Your task to perform on an android device: turn off priority inbox in the gmail app Image 0: 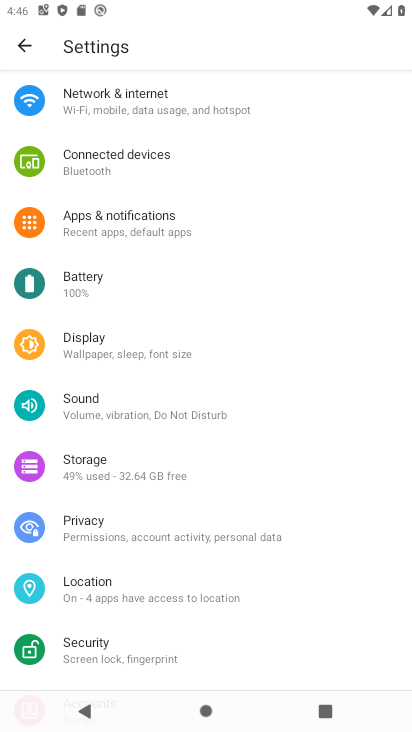
Step 0: press back button
Your task to perform on an android device: turn off priority inbox in the gmail app Image 1: 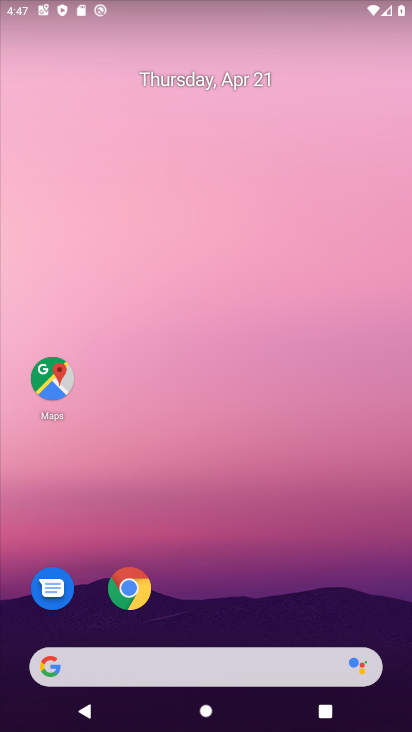
Step 1: drag from (255, 560) to (295, 55)
Your task to perform on an android device: turn off priority inbox in the gmail app Image 2: 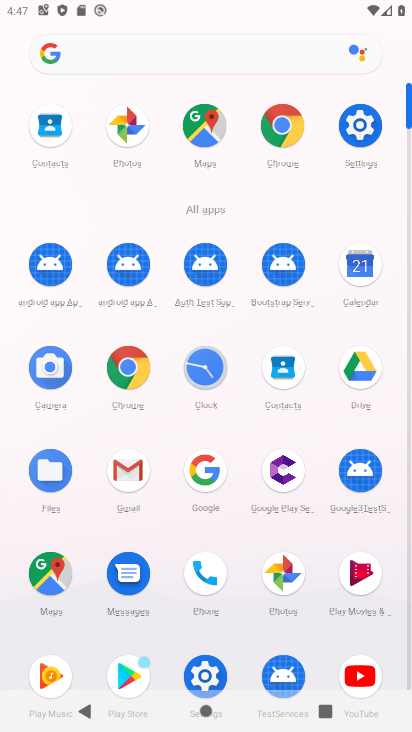
Step 2: click (129, 465)
Your task to perform on an android device: turn off priority inbox in the gmail app Image 3: 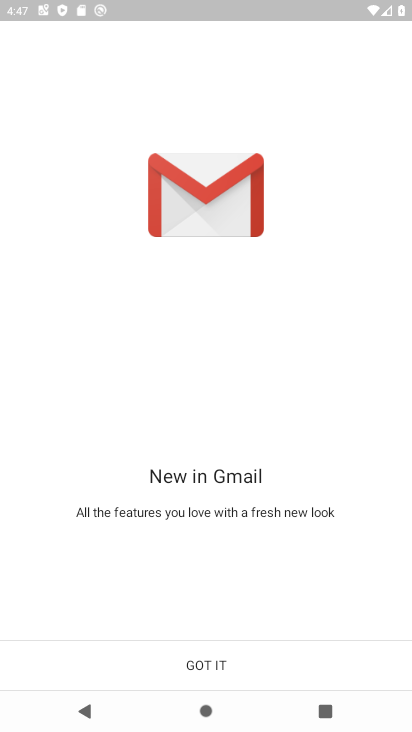
Step 3: click (210, 658)
Your task to perform on an android device: turn off priority inbox in the gmail app Image 4: 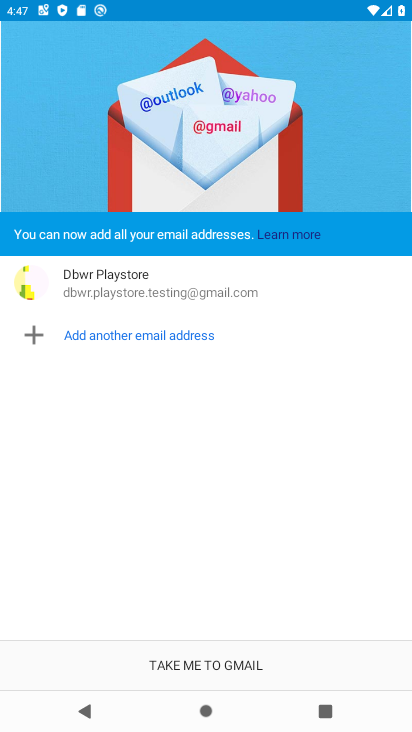
Step 4: click (210, 658)
Your task to perform on an android device: turn off priority inbox in the gmail app Image 5: 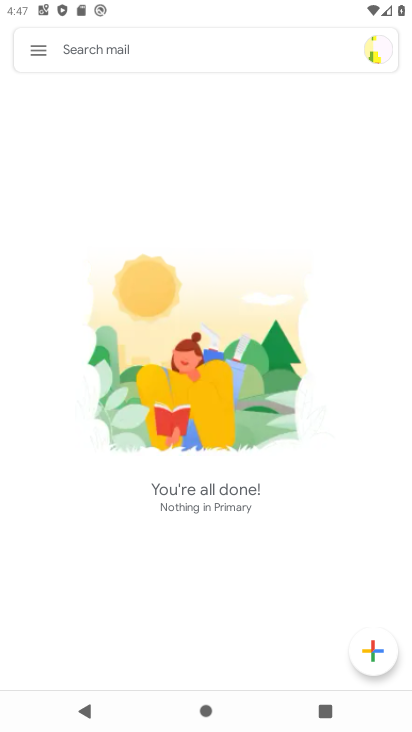
Step 5: click (37, 52)
Your task to perform on an android device: turn off priority inbox in the gmail app Image 6: 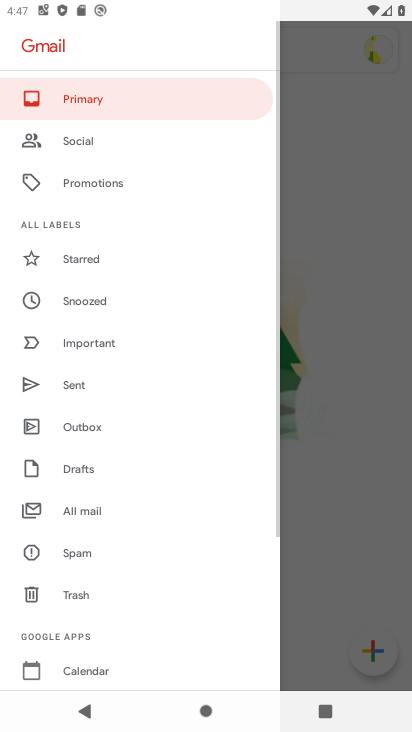
Step 6: drag from (105, 671) to (164, 53)
Your task to perform on an android device: turn off priority inbox in the gmail app Image 7: 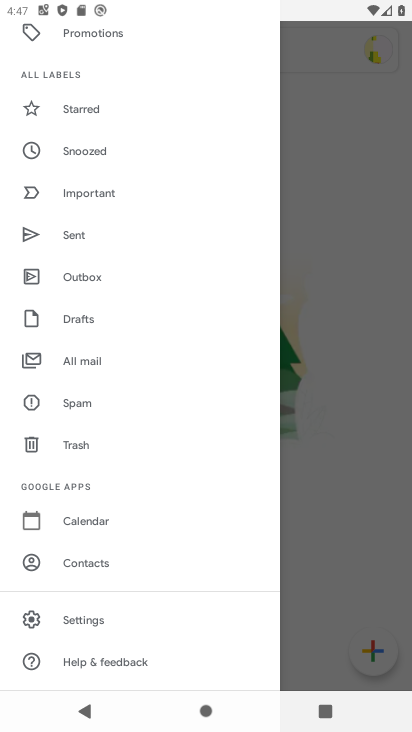
Step 7: click (99, 623)
Your task to perform on an android device: turn off priority inbox in the gmail app Image 8: 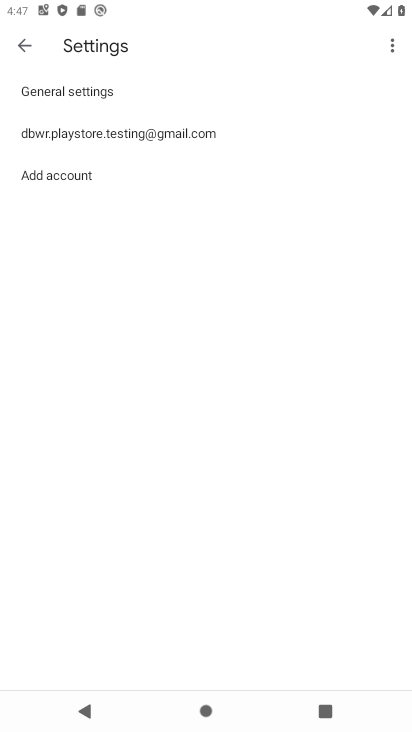
Step 8: click (166, 128)
Your task to perform on an android device: turn off priority inbox in the gmail app Image 9: 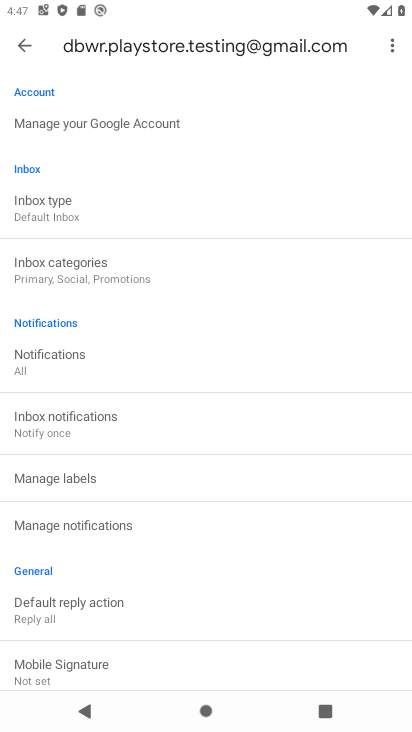
Step 9: click (76, 201)
Your task to perform on an android device: turn off priority inbox in the gmail app Image 10: 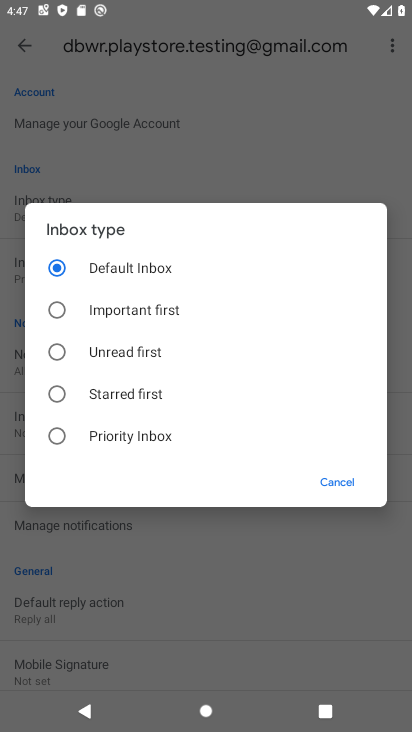
Step 10: task complete